Your task to perform on an android device: See recent photos Image 0: 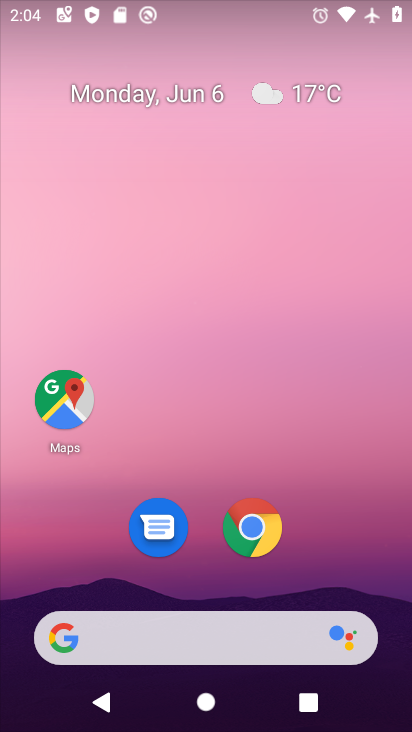
Step 0: drag from (335, 413) to (225, 0)
Your task to perform on an android device: See recent photos Image 1: 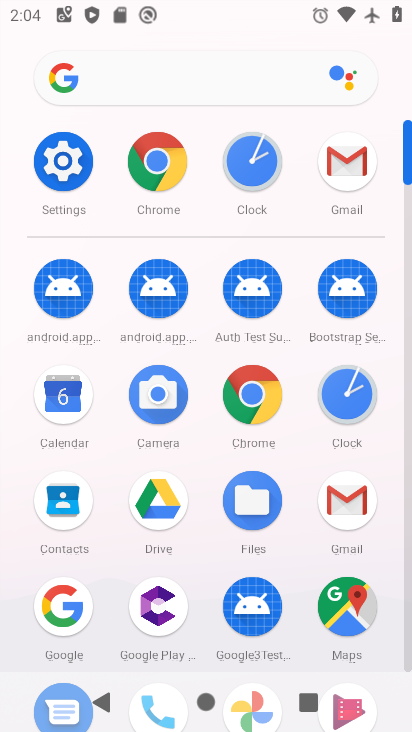
Step 1: drag from (269, 647) to (220, 83)
Your task to perform on an android device: See recent photos Image 2: 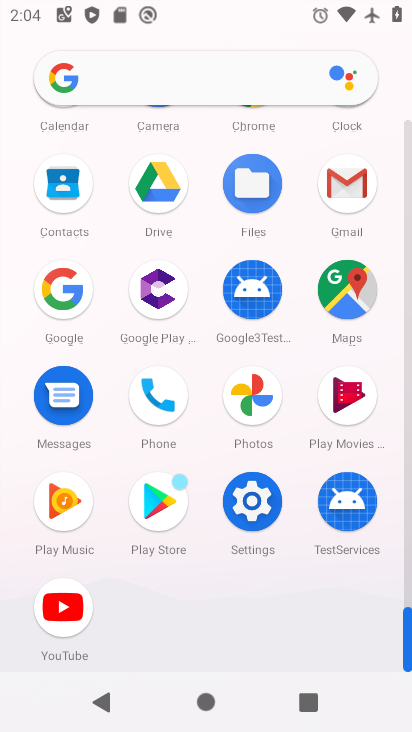
Step 2: click (248, 398)
Your task to perform on an android device: See recent photos Image 3: 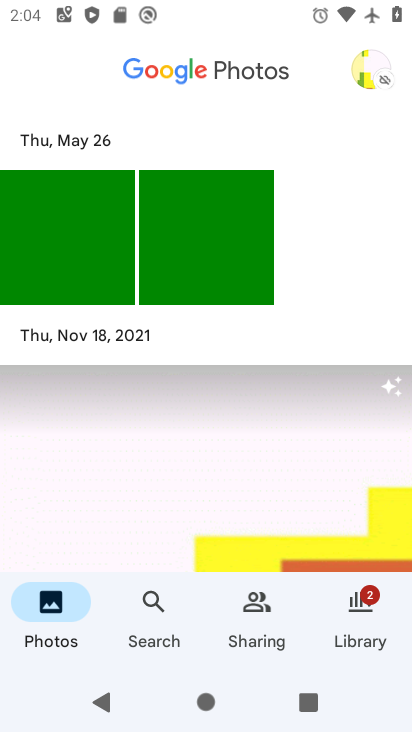
Step 3: click (176, 72)
Your task to perform on an android device: See recent photos Image 4: 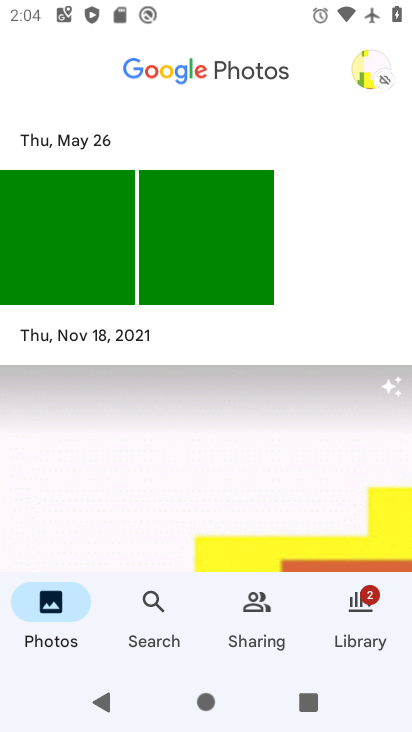
Step 4: click (150, 614)
Your task to perform on an android device: See recent photos Image 5: 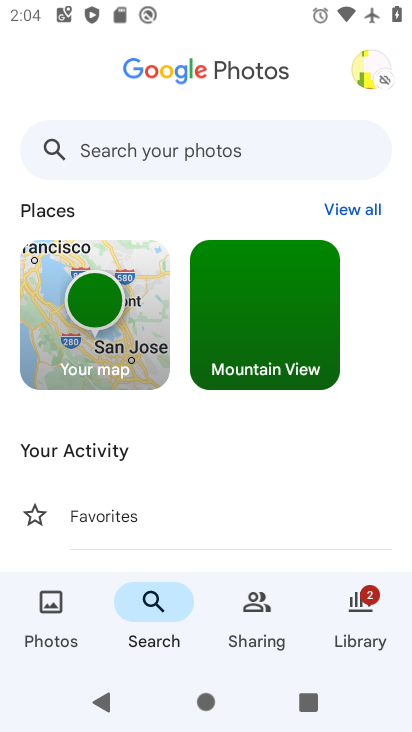
Step 5: click (132, 135)
Your task to perform on an android device: See recent photos Image 6: 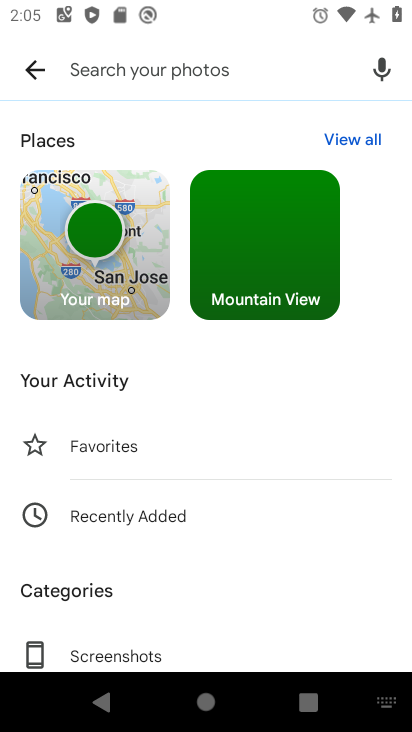
Step 6: type "recent photos"
Your task to perform on an android device: See recent photos Image 7: 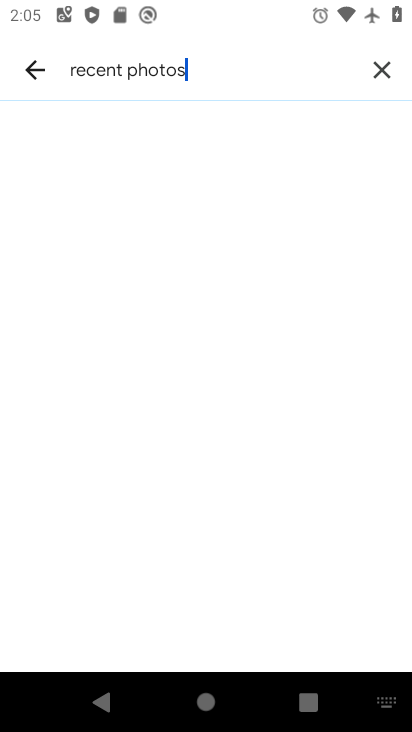
Step 7: press back button
Your task to perform on an android device: See recent photos Image 8: 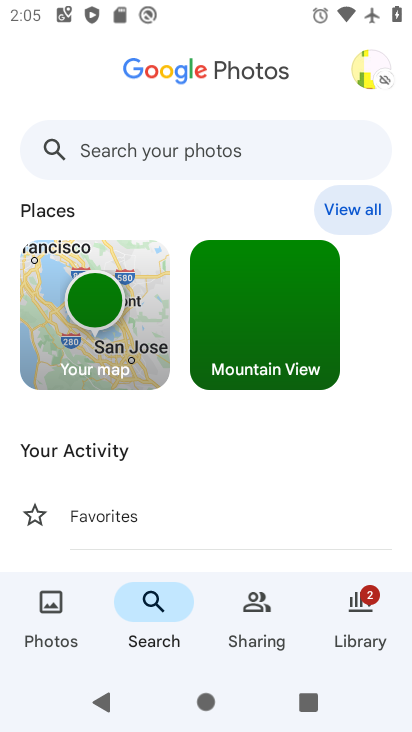
Step 8: click (52, 615)
Your task to perform on an android device: See recent photos Image 9: 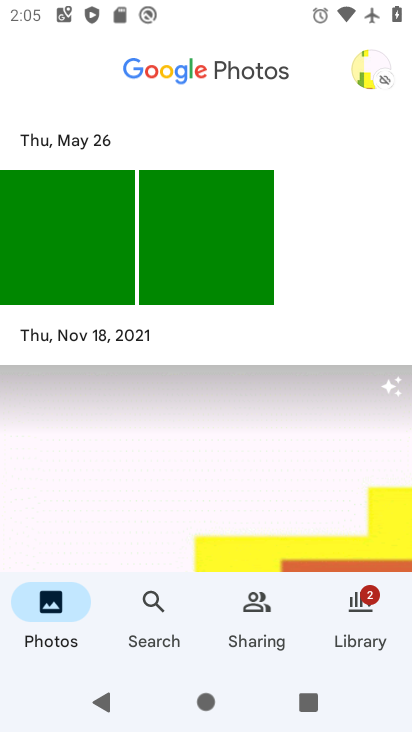
Step 9: task complete